Your task to perform on an android device: move a message to another label in the gmail app Image 0: 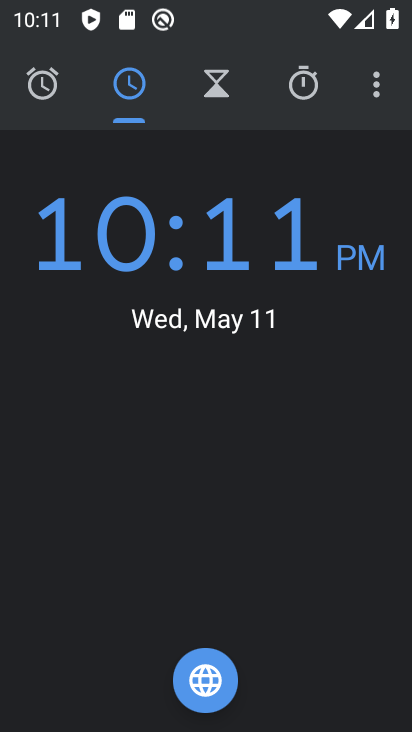
Step 0: press back button
Your task to perform on an android device: move a message to another label in the gmail app Image 1: 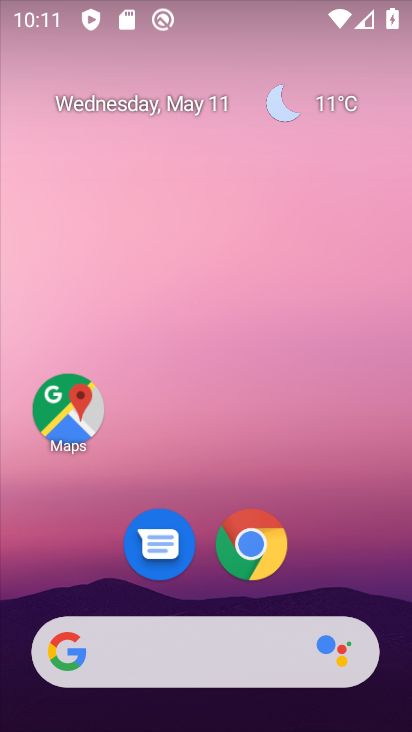
Step 1: drag from (160, 557) to (252, 214)
Your task to perform on an android device: move a message to another label in the gmail app Image 2: 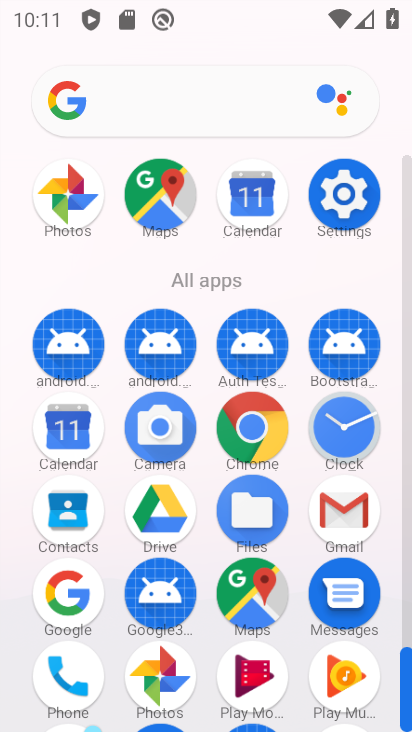
Step 2: click (342, 517)
Your task to perform on an android device: move a message to another label in the gmail app Image 3: 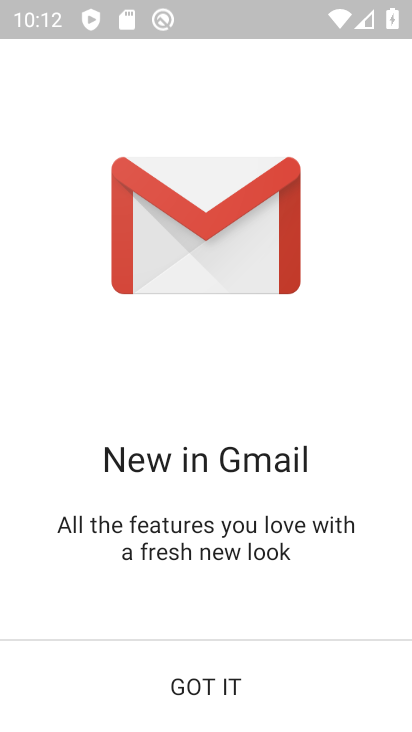
Step 3: click (205, 686)
Your task to perform on an android device: move a message to another label in the gmail app Image 4: 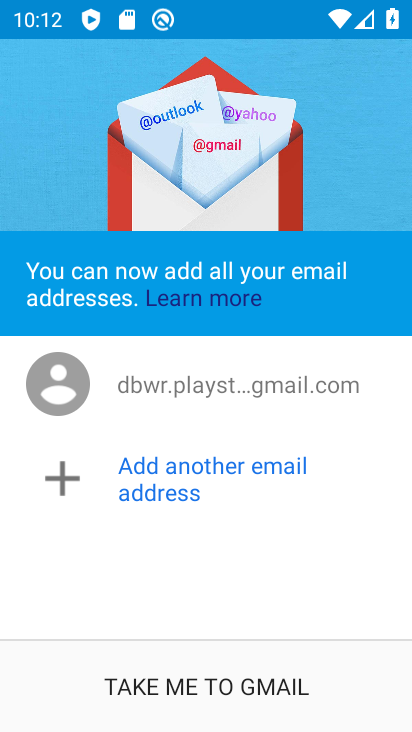
Step 4: click (192, 684)
Your task to perform on an android device: move a message to another label in the gmail app Image 5: 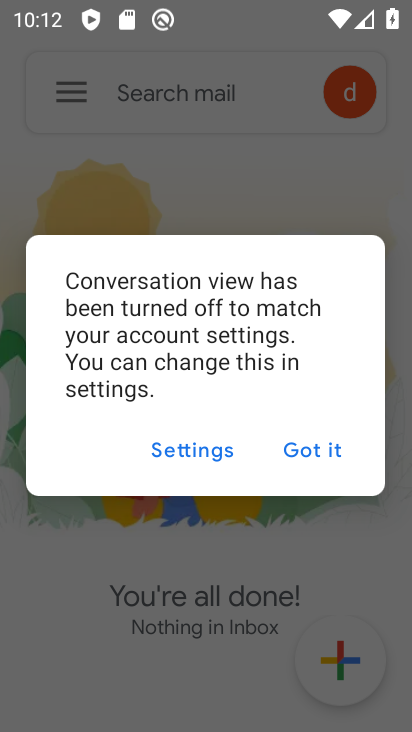
Step 5: click (313, 447)
Your task to perform on an android device: move a message to another label in the gmail app Image 6: 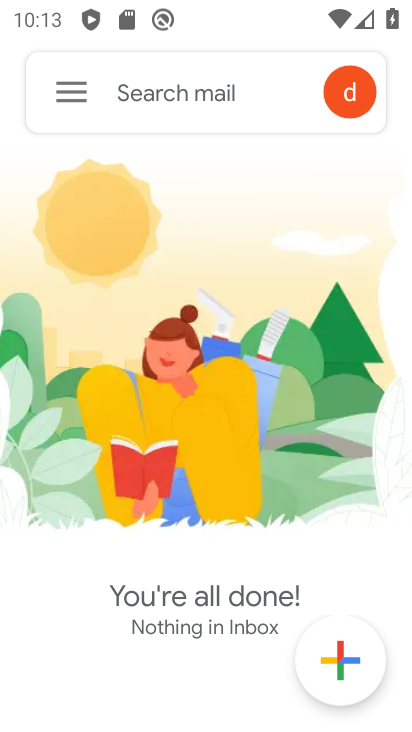
Step 6: click (57, 77)
Your task to perform on an android device: move a message to another label in the gmail app Image 7: 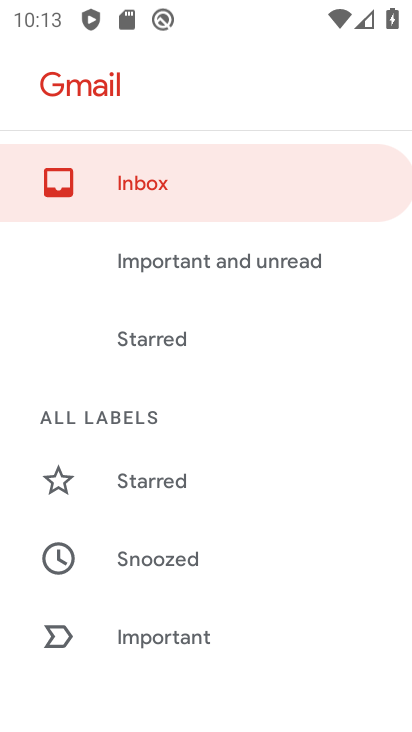
Step 7: drag from (214, 595) to (300, 118)
Your task to perform on an android device: move a message to another label in the gmail app Image 8: 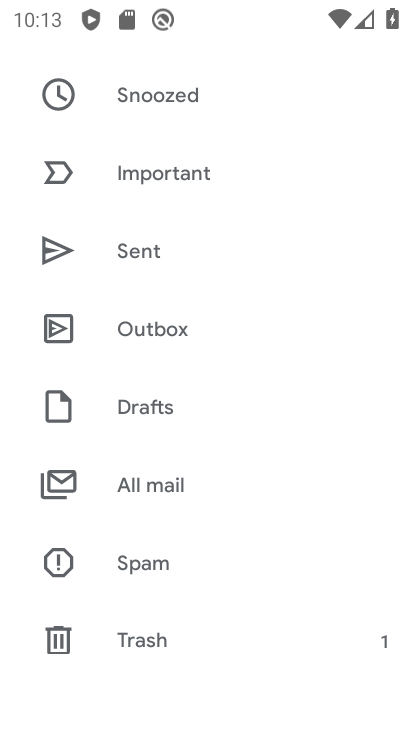
Step 8: click (201, 481)
Your task to perform on an android device: move a message to another label in the gmail app Image 9: 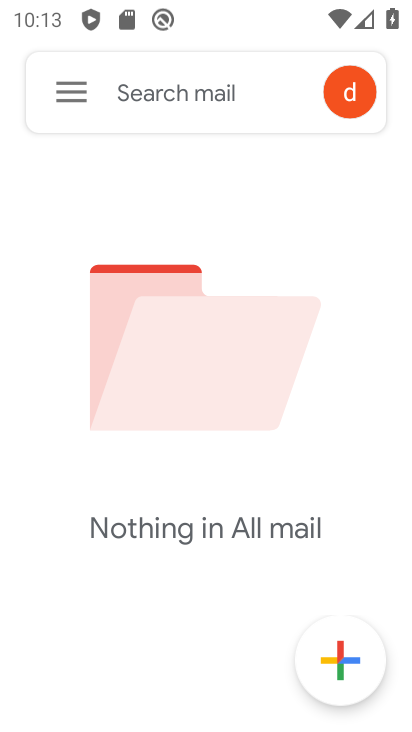
Step 9: task complete